Your task to perform on an android device: turn on sleep mode Image 0: 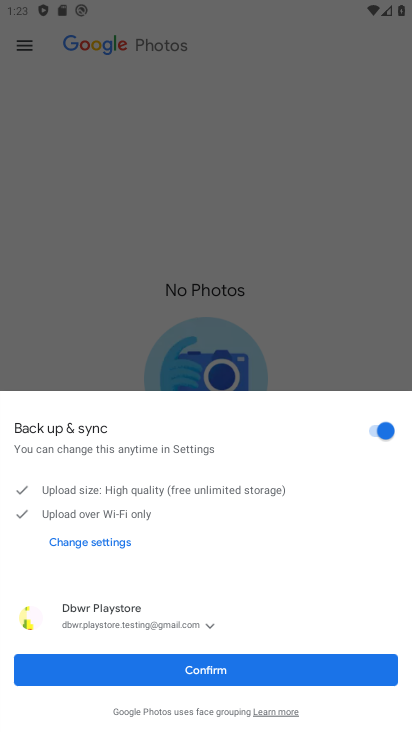
Step 0: press home button
Your task to perform on an android device: turn on sleep mode Image 1: 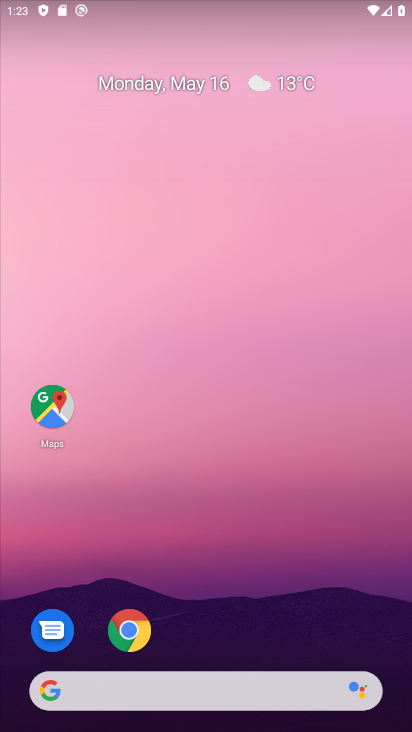
Step 1: drag from (252, 614) to (245, 551)
Your task to perform on an android device: turn on sleep mode Image 2: 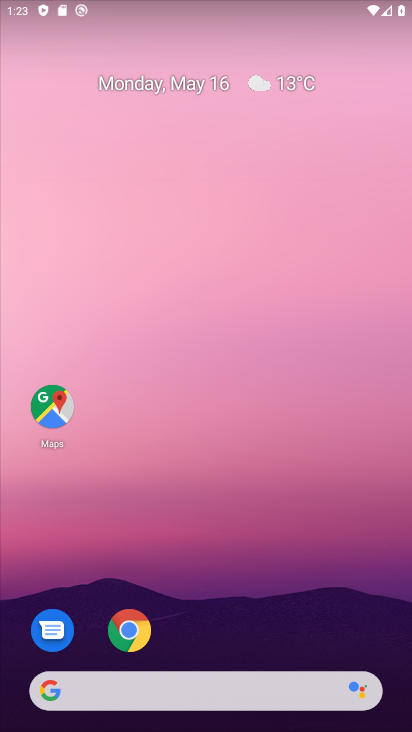
Step 2: drag from (246, 443) to (237, 261)
Your task to perform on an android device: turn on sleep mode Image 3: 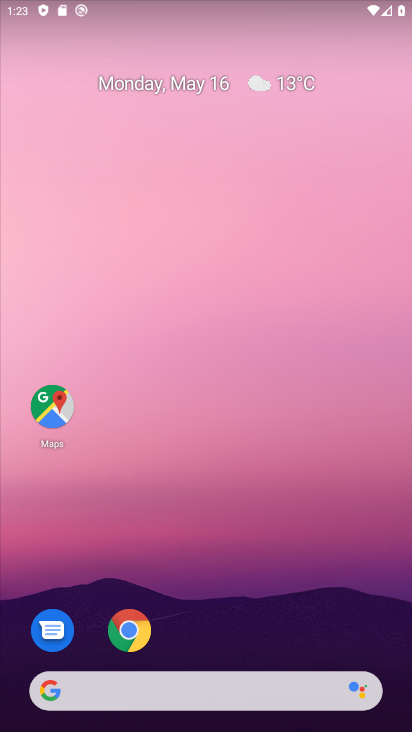
Step 3: drag from (239, 602) to (257, 65)
Your task to perform on an android device: turn on sleep mode Image 4: 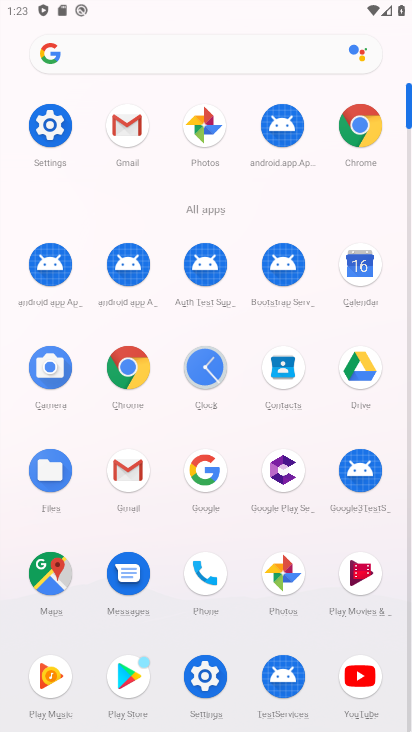
Step 4: click (47, 133)
Your task to perform on an android device: turn on sleep mode Image 5: 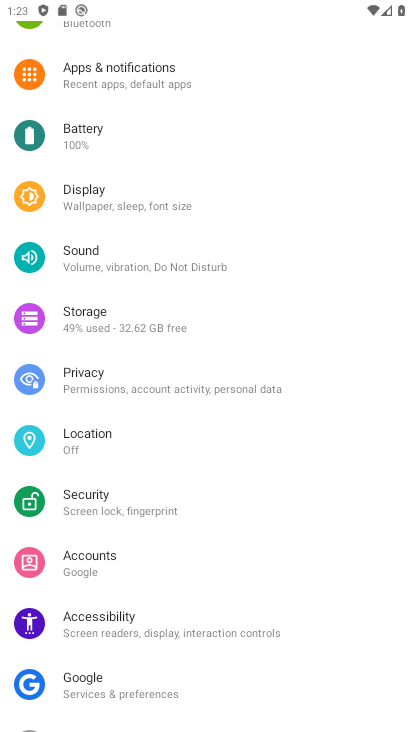
Step 5: click (85, 191)
Your task to perform on an android device: turn on sleep mode Image 6: 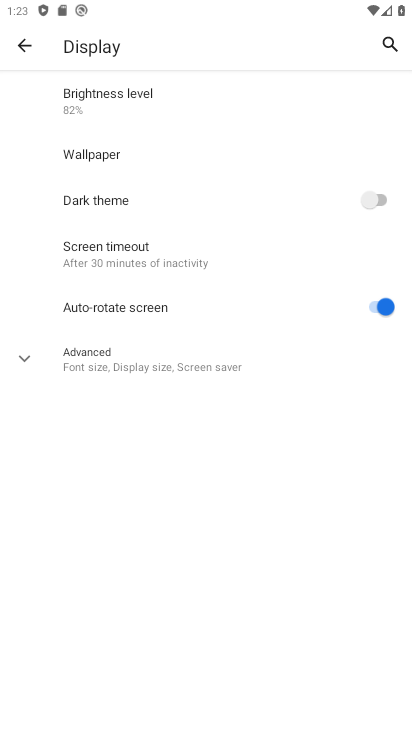
Step 6: click (27, 349)
Your task to perform on an android device: turn on sleep mode Image 7: 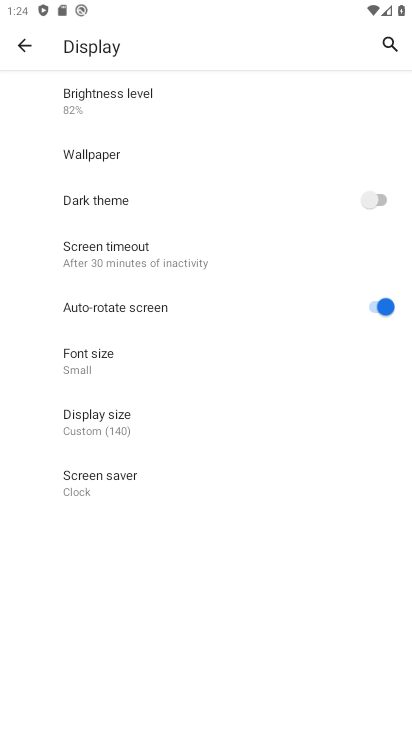
Step 7: press back button
Your task to perform on an android device: turn on sleep mode Image 8: 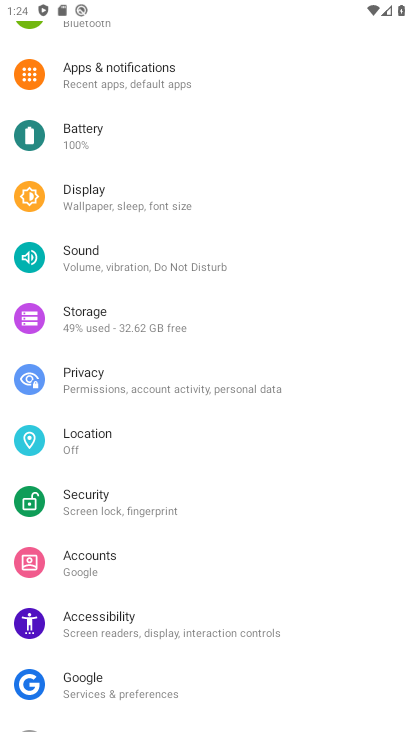
Step 8: click (69, 257)
Your task to perform on an android device: turn on sleep mode Image 9: 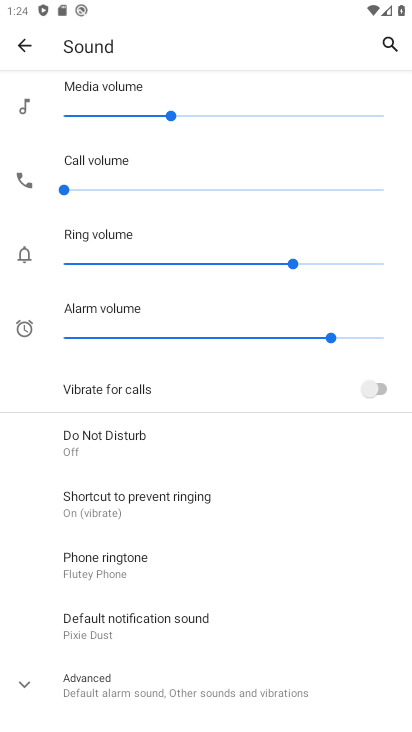
Step 9: press back button
Your task to perform on an android device: turn on sleep mode Image 10: 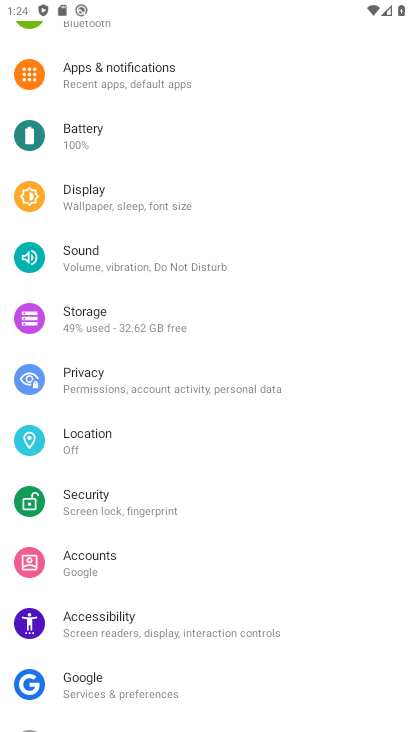
Step 10: click (187, 198)
Your task to perform on an android device: turn on sleep mode Image 11: 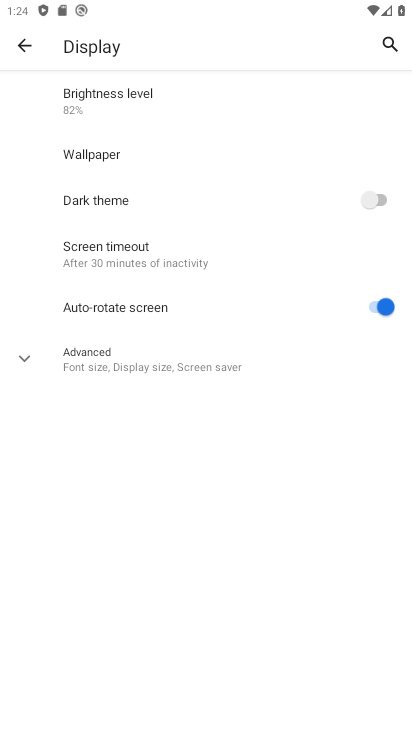
Step 11: press back button
Your task to perform on an android device: turn on sleep mode Image 12: 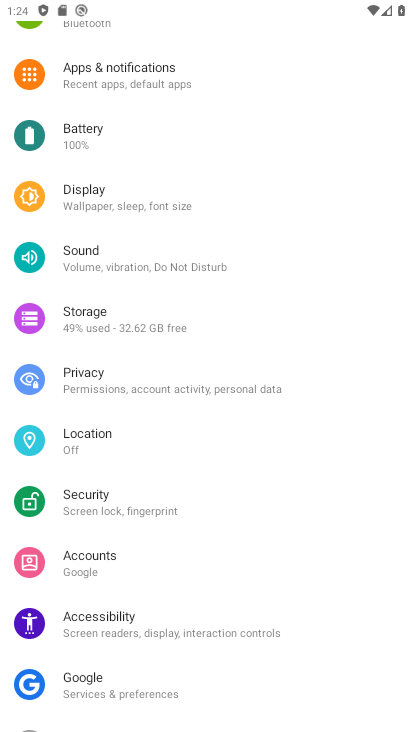
Step 12: drag from (305, 597) to (147, 157)
Your task to perform on an android device: turn on sleep mode Image 13: 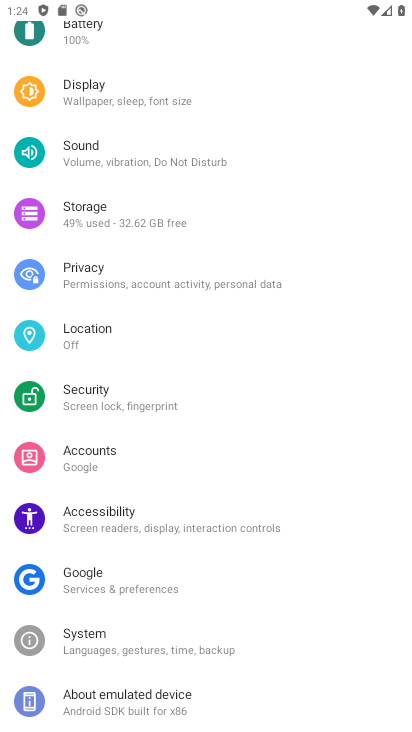
Step 13: drag from (268, 623) to (174, 290)
Your task to perform on an android device: turn on sleep mode Image 14: 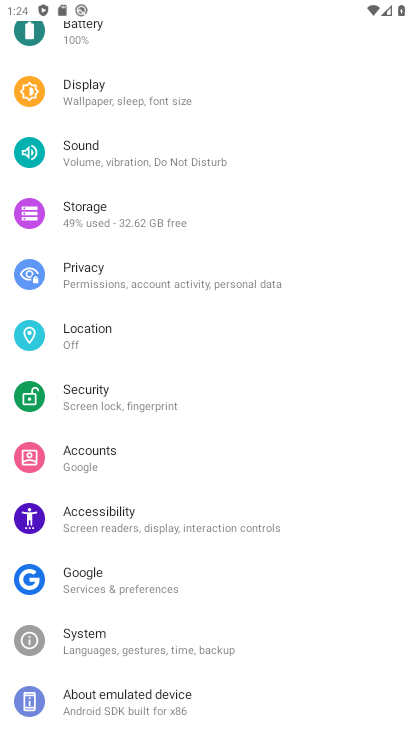
Step 14: click (143, 680)
Your task to perform on an android device: turn on sleep mode Image 15: 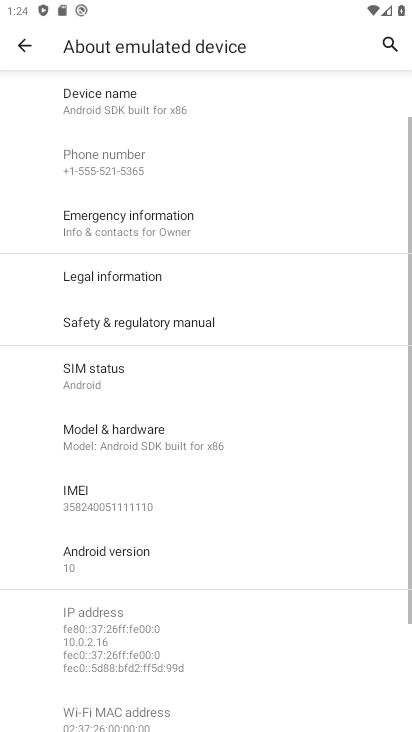
Step 15: drag from (215, 588) to (164, 222)
Your task to perform on an android device: turn on sleep mode Image 16: 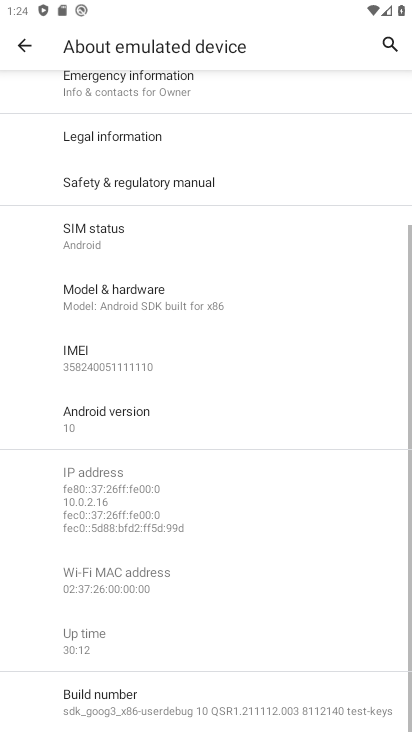
Step 16: press back button
Your task to perform on an android device: turn on sleep mode Image 17: 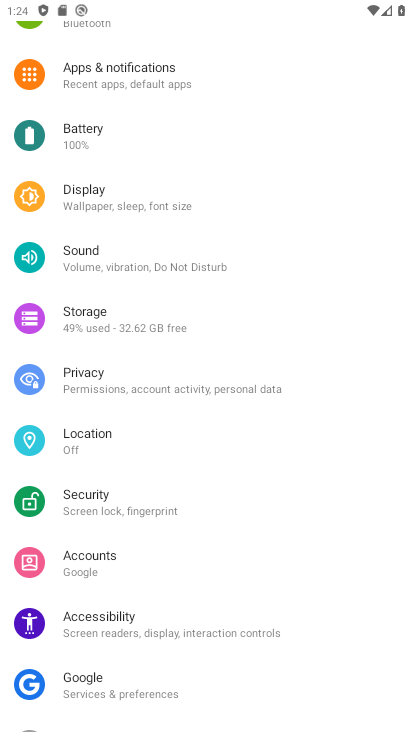
Step 17: drag from (383, 521) to (389, 559)
Your task to perform on an android device: turn on sleep mode Image 18: 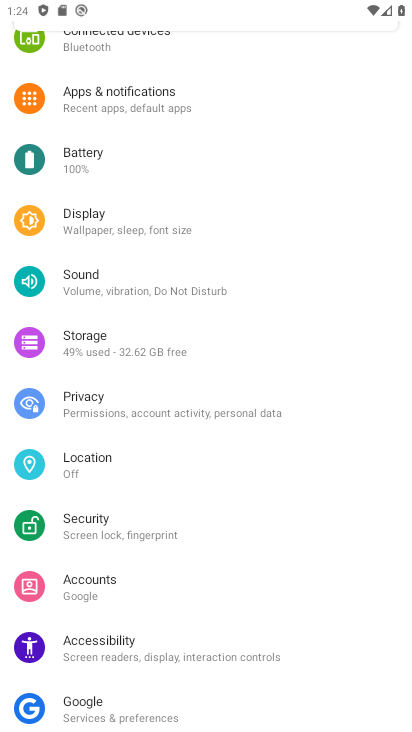
Step 18: click (135, 307)
Your task to perform on an android device: turn on sleep mode Image 19: 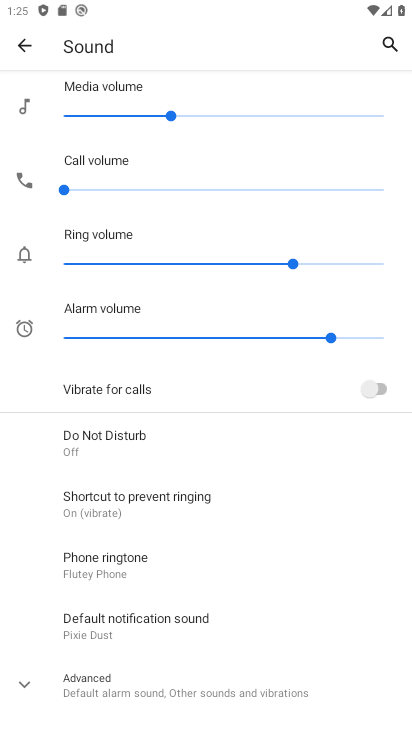
Step 19: task complete